Your task to perform on an android device: Find coffee shops on Maps Image 0: 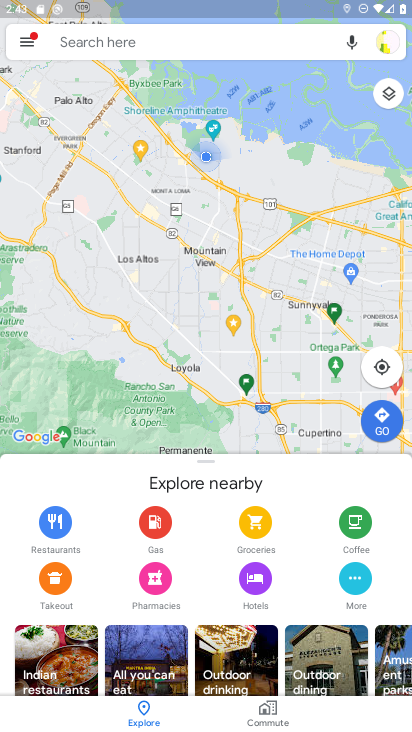
Step 0: click (201, 39)
Your task to perform on an android device: Find coffee shops on Maps Image 1: 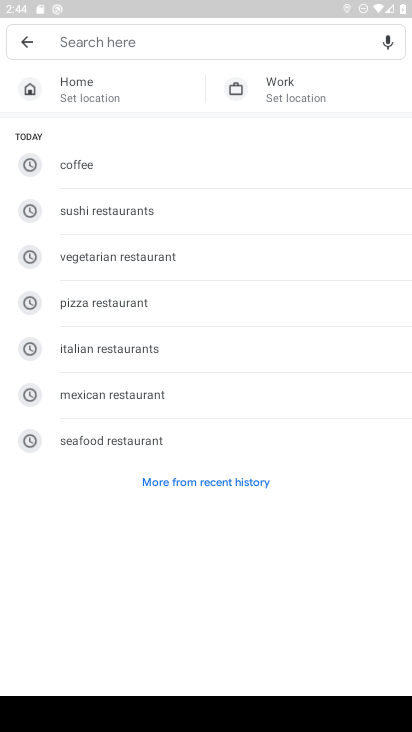
Step 1: type "coffee shops"
Your task to perform on an android device: Find coffee shops on Maps Image 2: 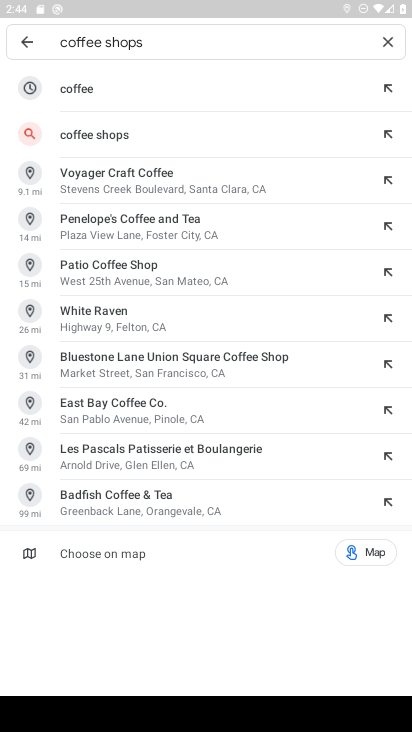
Step 2: click (144, 128)
Your task to perform on an android device: Find coffee shops on Maps Image 3: 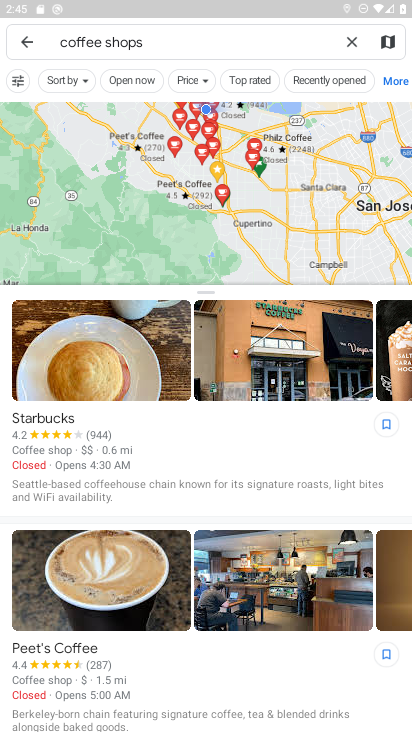
Step 3: task complete